Your task to perform on an android device: Open battery settings Image 0: 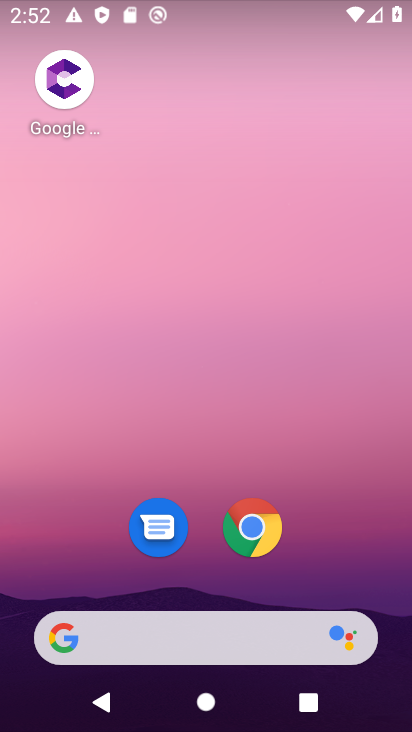
Step 0: drag from (199, 594) to (152, 154)
Your task to perform on an android device: Open battery settings Image 1: 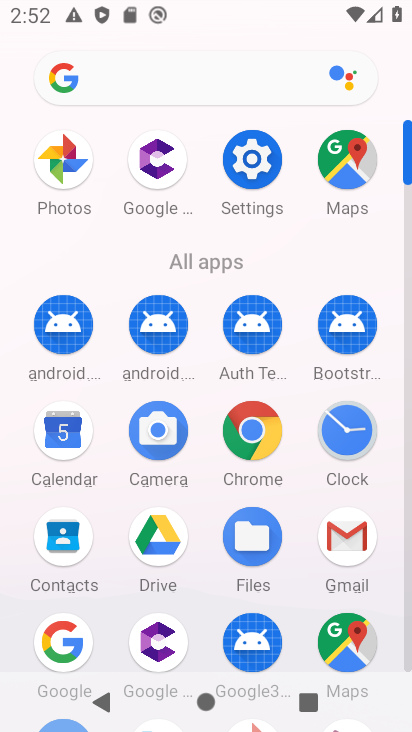
Step 1: click (265, 152)
Your task to perform on an android device: Open battery settings Image 2: 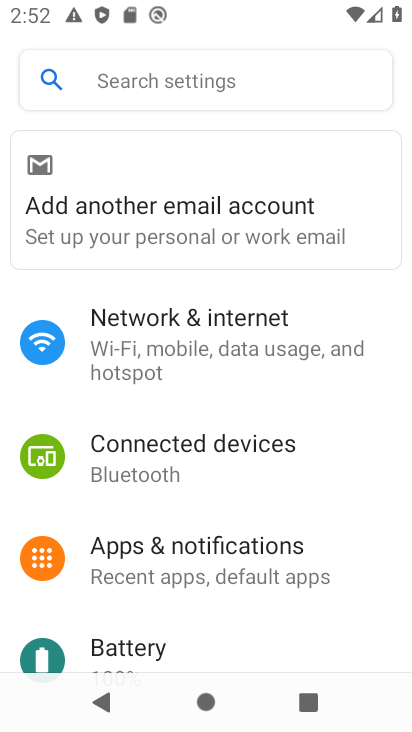
Step 2: click (129, 643)
Your task to perform on an android device: Open battery settings Image 3: 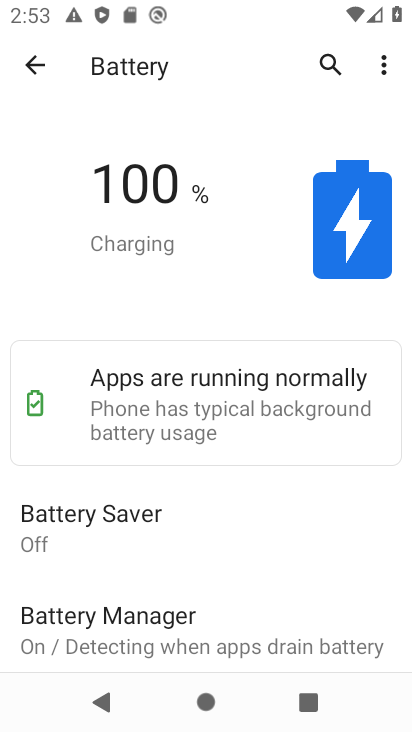
Step 3: task complete